Your task to perform on an android device: What's on my calendar tomorrow? Image 0: 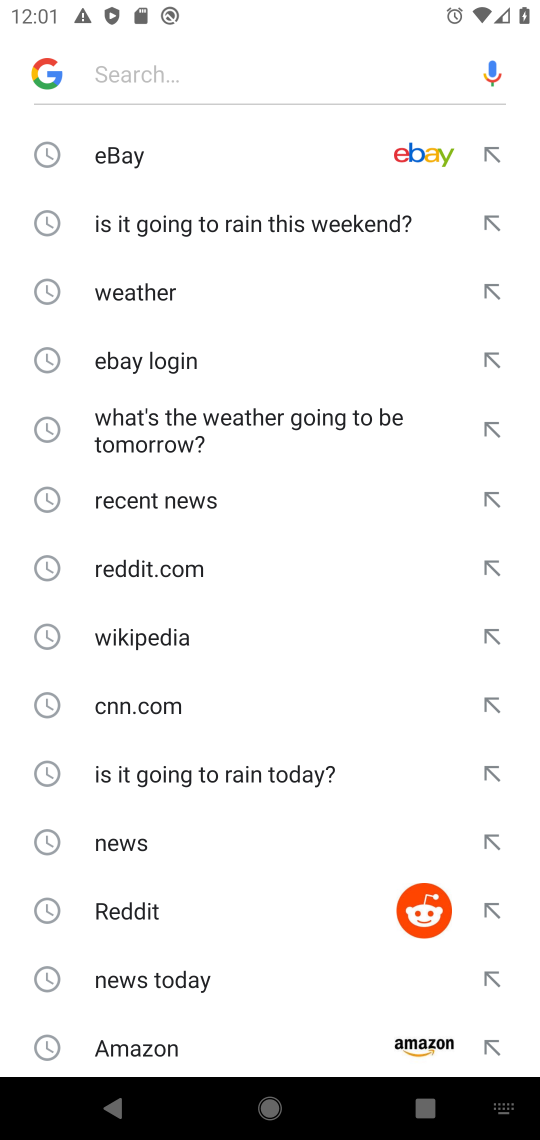
Step 0: press home button
Your task to perform on an android device: What's on my calendar tomorrow? Image 1: 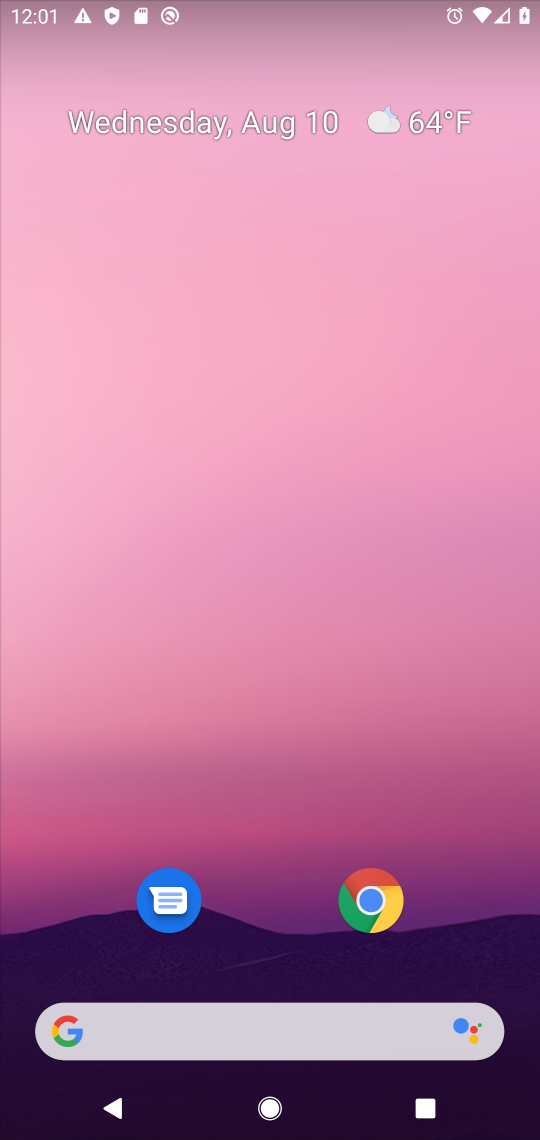
Step 1: drag from (254, 855) to (316, 0)
Your task to perform on an android device: What's on my calendar tomorrow? Image 2: 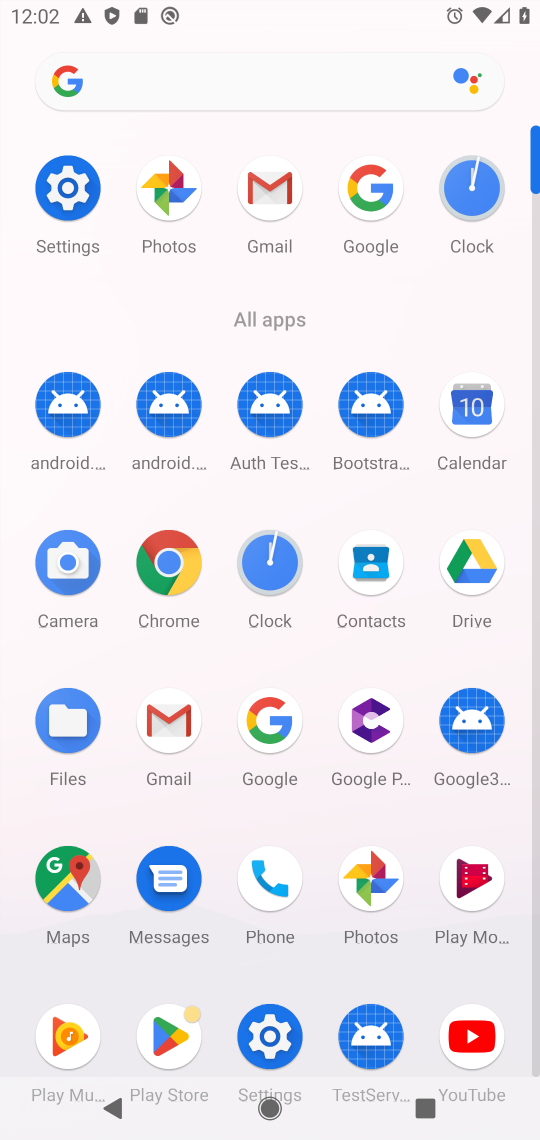
Step 2: click (476, 420)
Your task to perform on an android device: What's on my calendar tomorrow? Image 3: 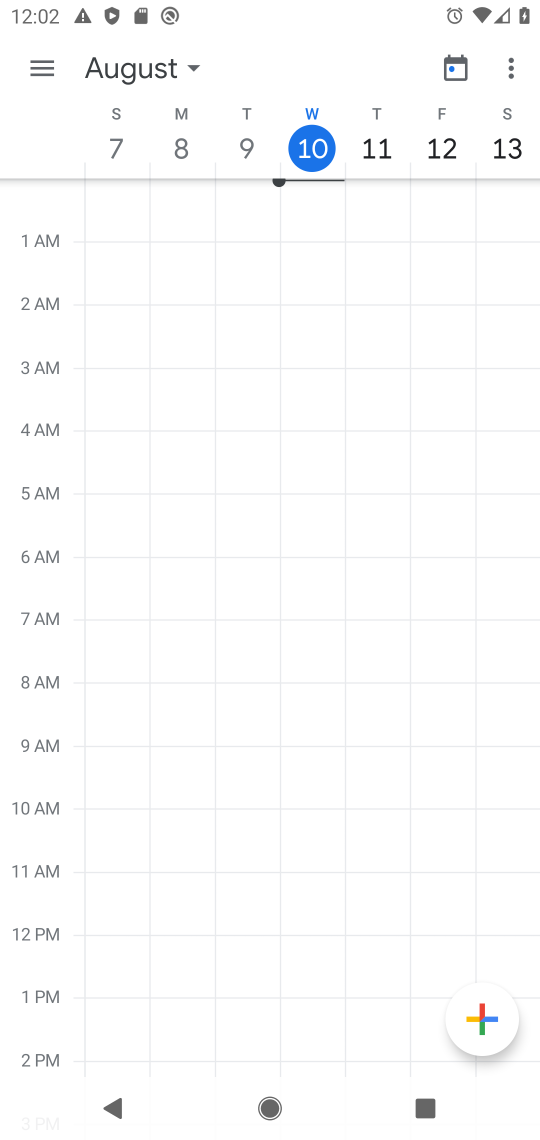
Step 3: task complete